Your task to perform on an android device: Go to wifi settings Image 0: 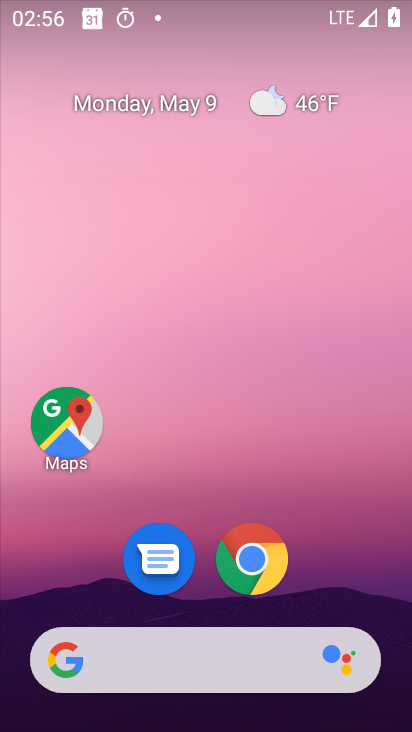
Step 0: drag from (360, 571) to (239, 4)
Your task to perform on an android device: Go to wifi settings Image 1: 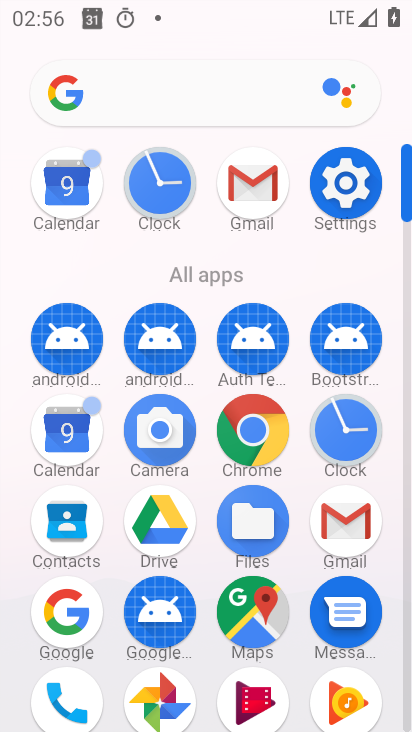
Step 1: click (344, 186)
Your task to perform on an android device: Go to wifi settings Image 2: 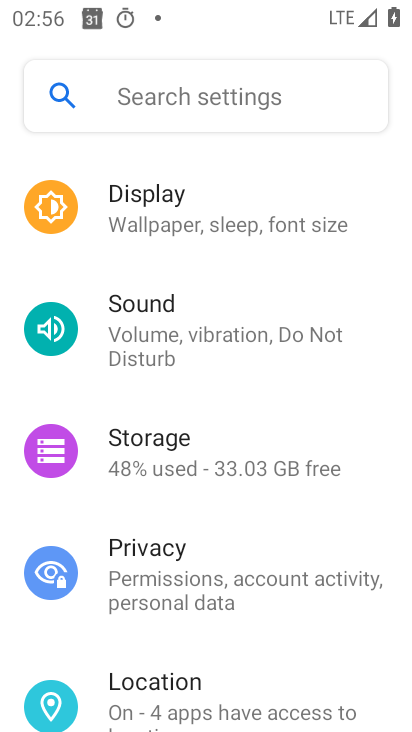
Step 2: drag from (230, 206) to (218, 358)
Your task to perform on an android device: Go to wifi settings Image 3: 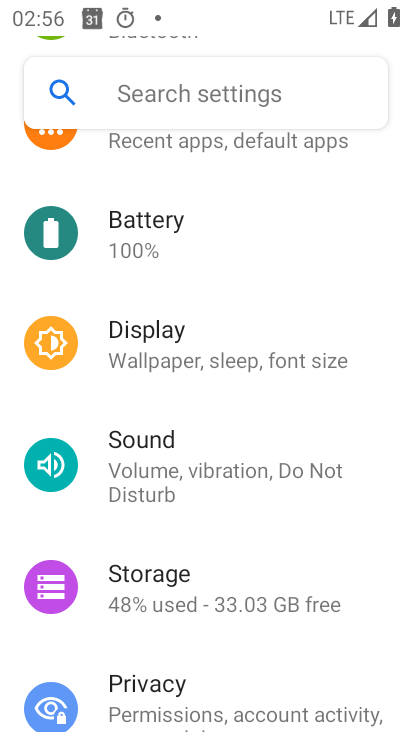
Step 3: drag from (220, 245) to (257, 387)
Your task to perform on an android device: Go to wifi settings Image 4: 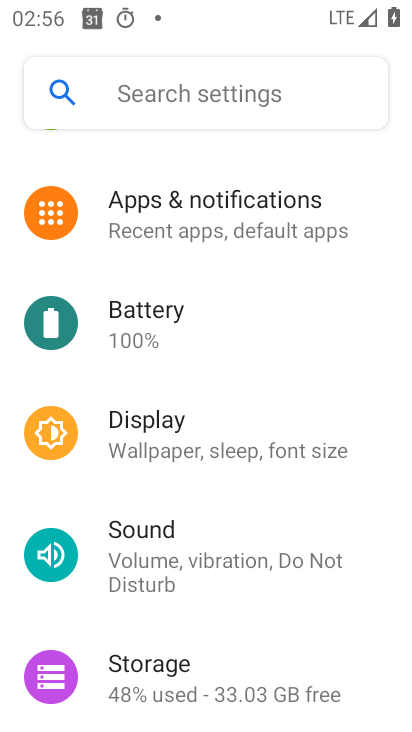
Step 4: drag from (235, 271) to (272, 455)
Your task to perform on an android device: Go to wifi settings Image 5: 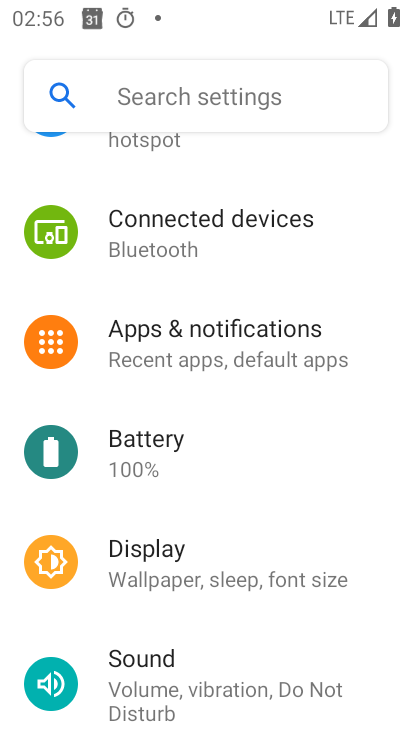
Step 5: drag from (221, 187) to (255, 431)
Your task to perform on an android device: Go to wifi settings Image 6: 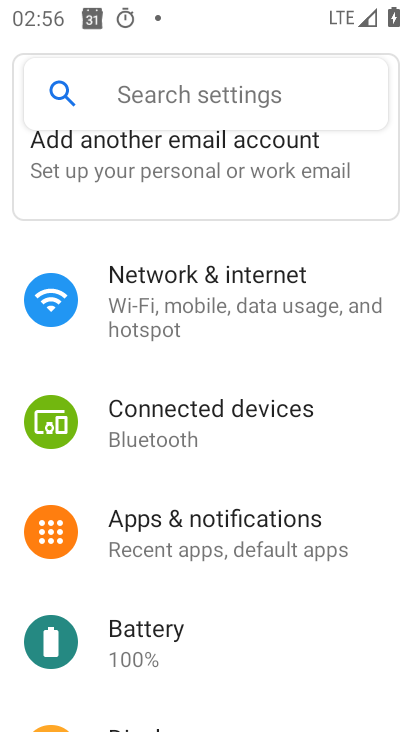
Step 6: click (223, 280)
Your task to perform on an android device: Go to wifi settings Image 7: 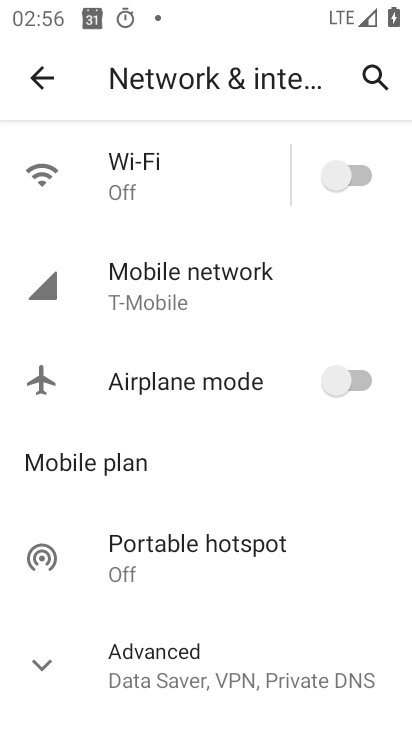
Step 7: click (139, 162)
Your task to perform on an android device: Go to wifi settings Image 8: 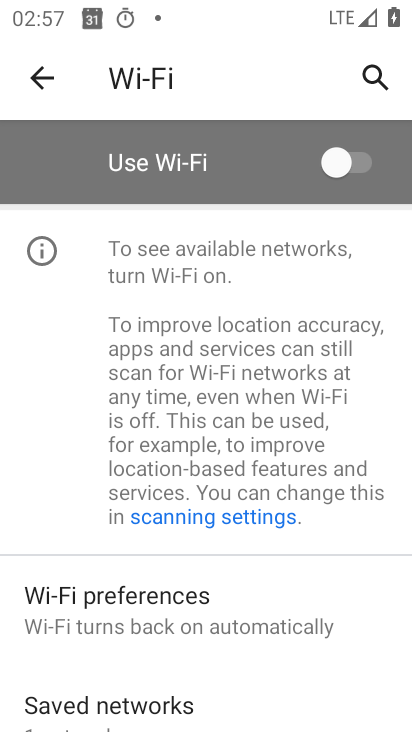
Step 8: task complete